Your task to perform on an android device: Go to display settings Image 0: 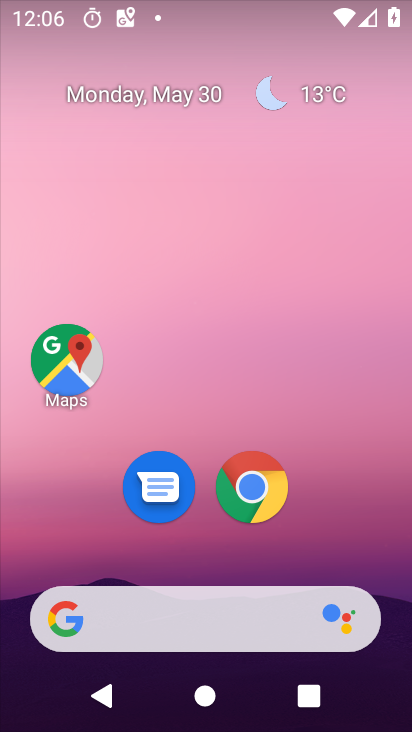
Step 0: drag from (384, 610) to (345, 177)
Your task to perform on an android device: Go to display settings Image 1: 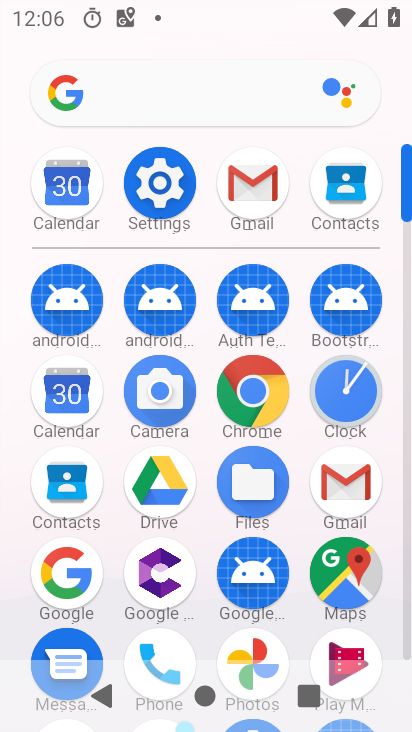
Step 1: click (124, 187)
Your task to perform on an android device: Go to display settings Image 2: 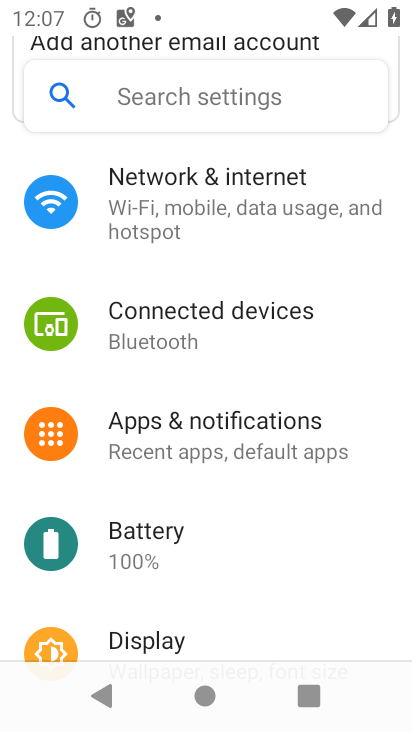
Step 2: drag from (244, 494) to (252, 223)
Your task to perform on an android device: Go to display settings Image 3: 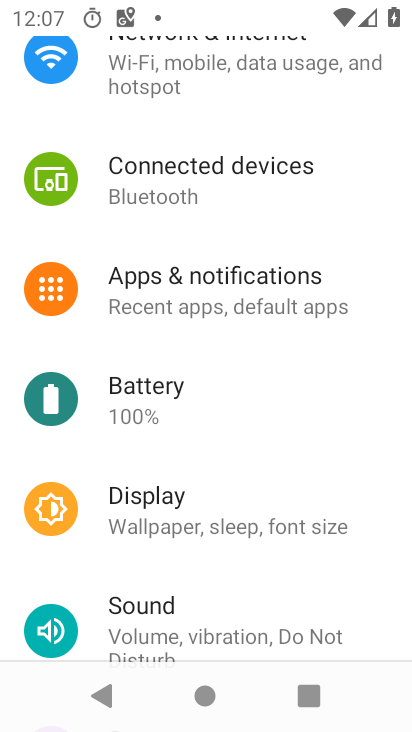
Step 3: drag from (268, 589) to (291, 277)
Your task to perform on an android device: Go to display settings Image 4: 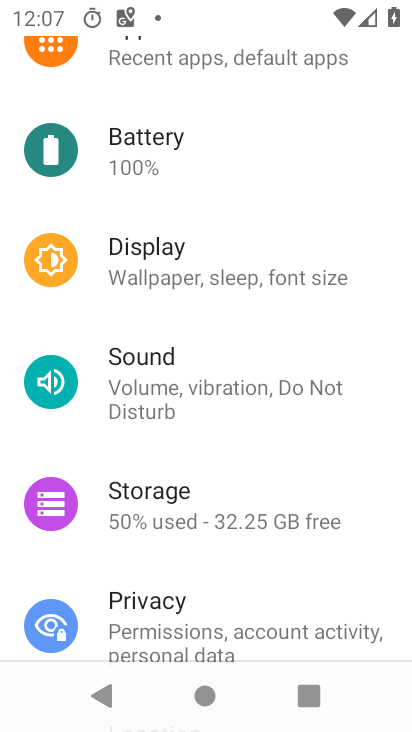
Step 4: drag from (258, 573) to (265, 272)
Your task to perform on an android device: Go to display settings Image 5: 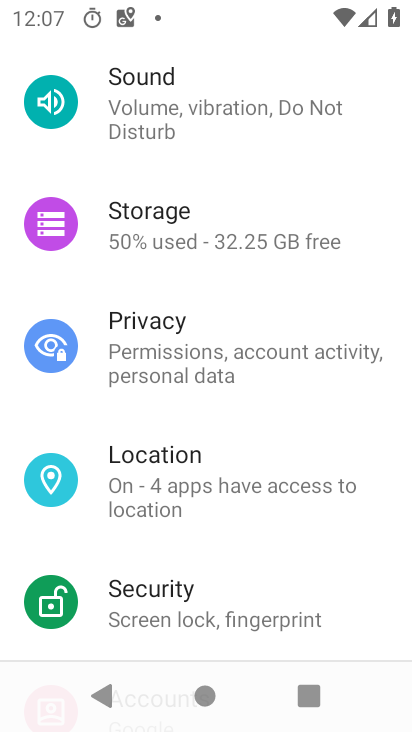
Step 5: drag from (235, 565) to (267, 229)
Your task to perform on an android device: Go to display settings Image 6: 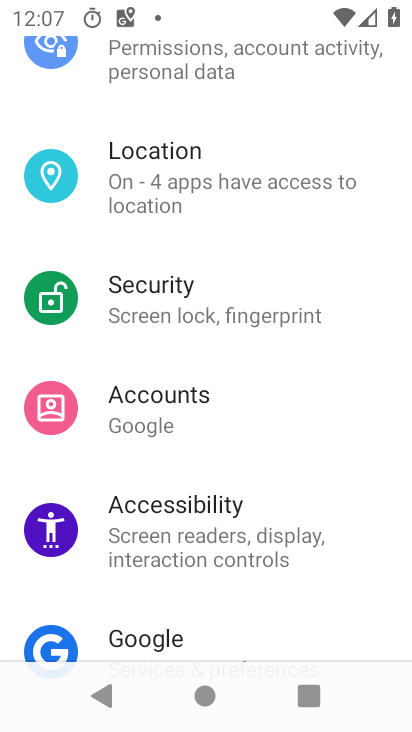
Step 6: drag from (236, 604) to (257, 343)
Your task to perform on an android device: Go to display settings Image 7: 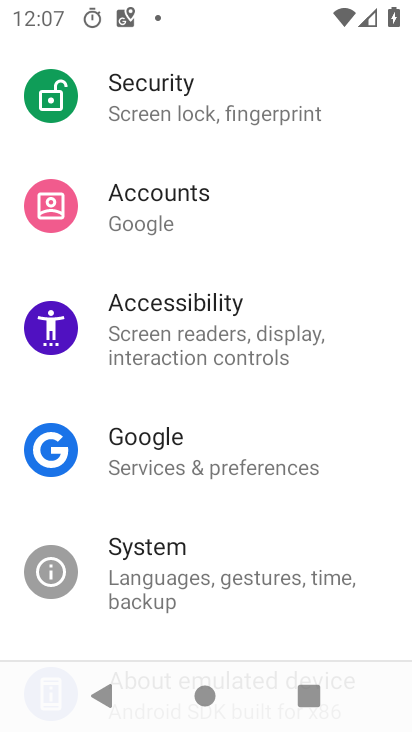
Step 7: drag from (316, 148) to (329, 506)
Your task to perform on an android device: Go to display settings Image 8: 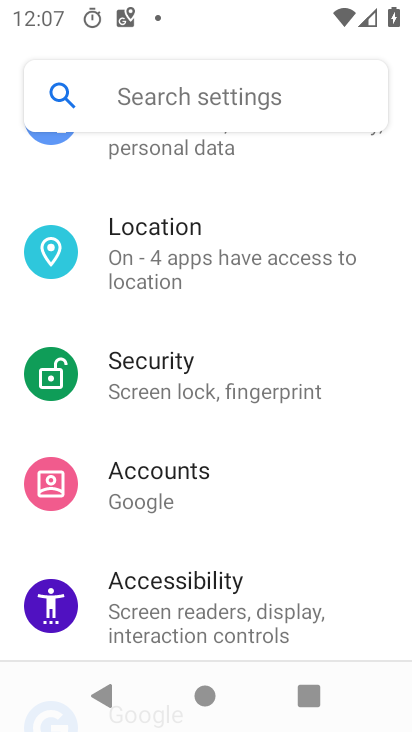
Step 8: drag from (340, 176) to (370, 559)
Your task to perform on an android device: Go to display settings Image 9: 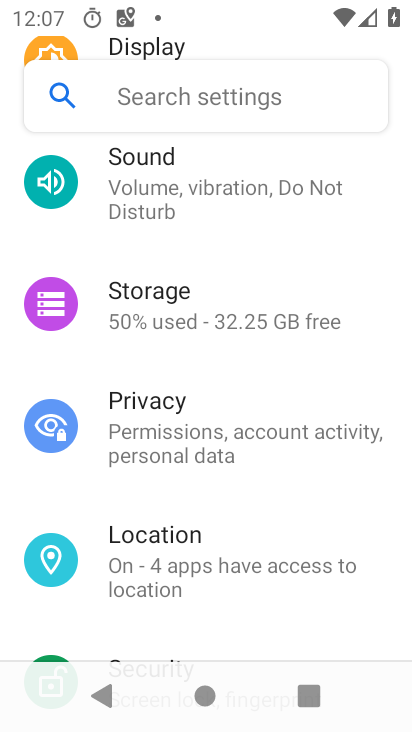
Step 9: drag from (359, 214) to (338, 597)
Your task to perform on an android device: Go to display settings Image 10: 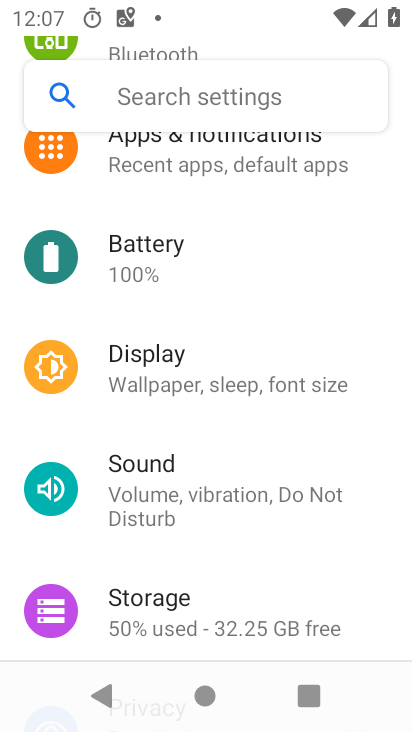
Step 10: drag from (363, 199) to (367, 537)
Your task to perform on an android device: Go to display settings Image 11: 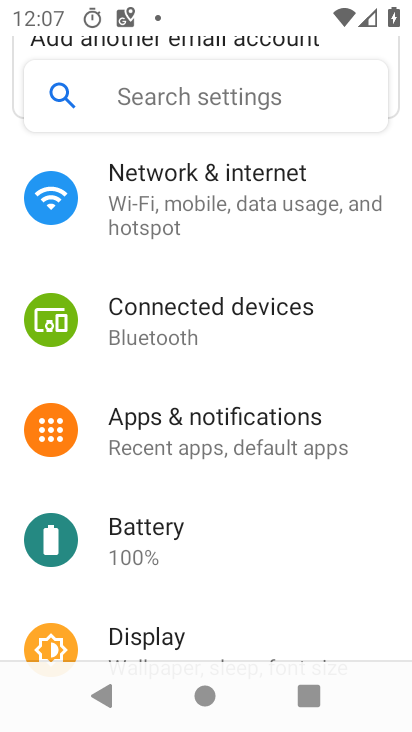
Step 11: click (108, 633)
Your task to perform on an android device: Go to display settings Image 12: 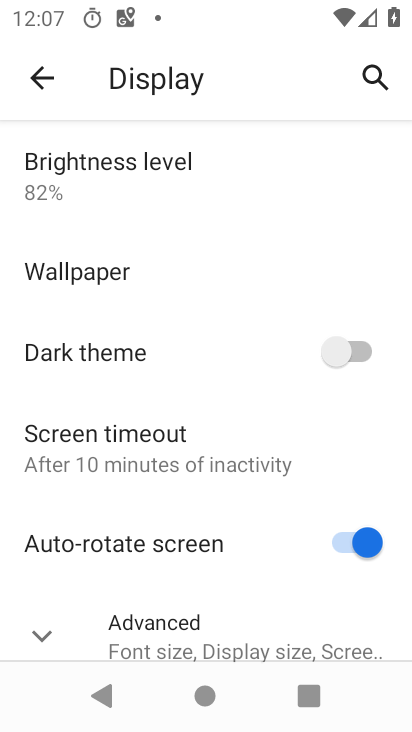
Step 12: drag from (262, 581) to (195, 238)
Your task to perform on an android device: Go to display settings Image 13: 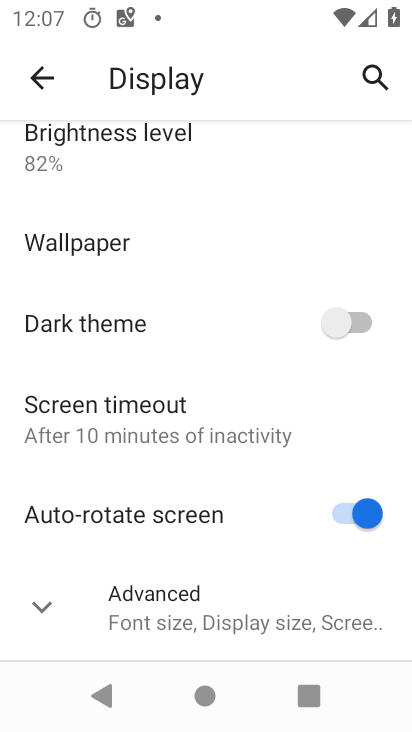
Step 13: click (51, 596)
Your task to perform on an android device: Go to display settings Image 14: 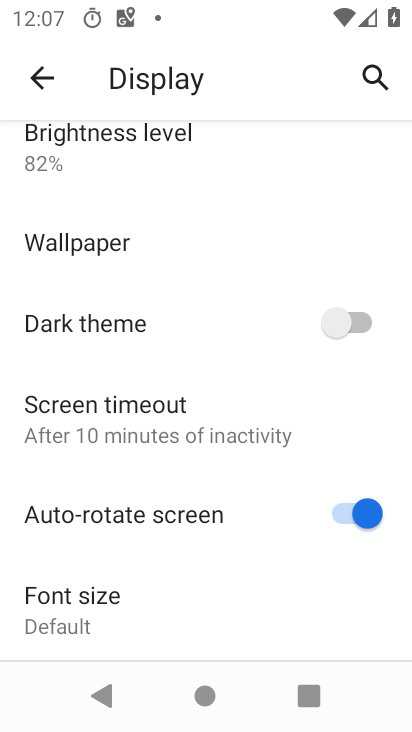
Step 14: task complete